Your task to perform on an android device: Open display settings Image 0: 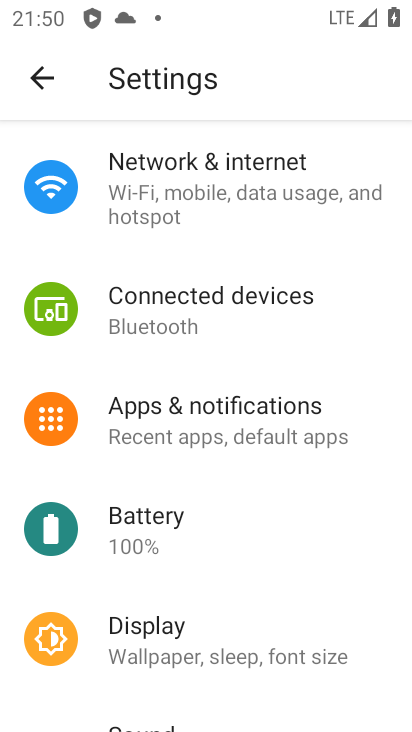
Step 0: click (154, 622)
Your task to perform on an android device: Open display settings Image 1: 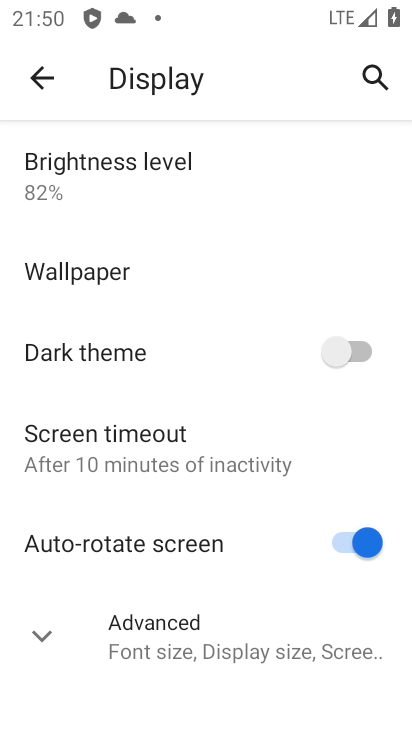
Step 1: task complete